Your task to perform on an android device: Show me recent news Image 0: 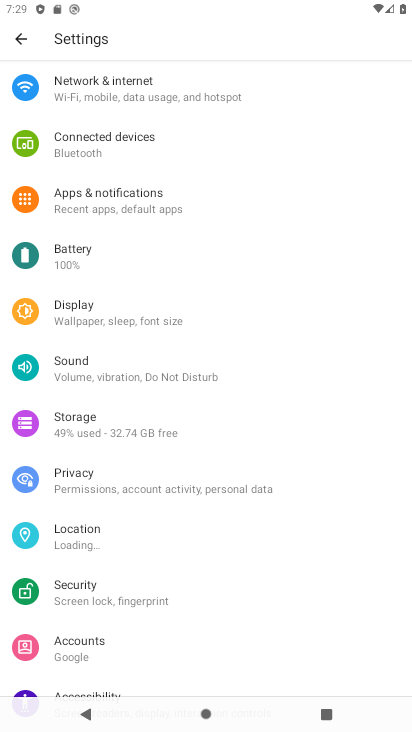
Step 0: press home button
Your task to perform on an android device: Show me recent news Image 1: 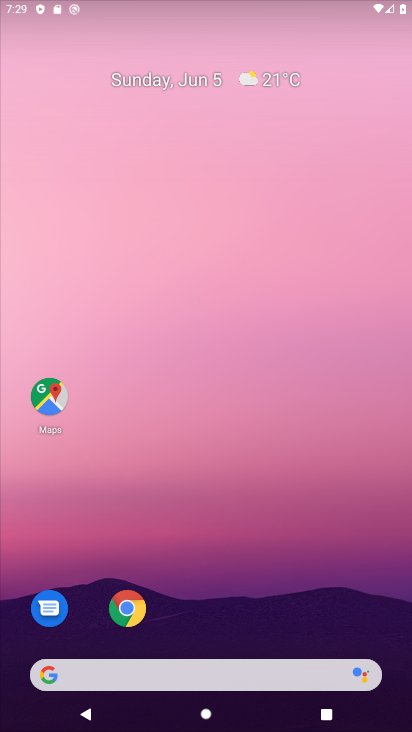
Step 1: drag from (327, 639) to (279, 242)
Your task to perform on an android device: Show me recent news Image 2: 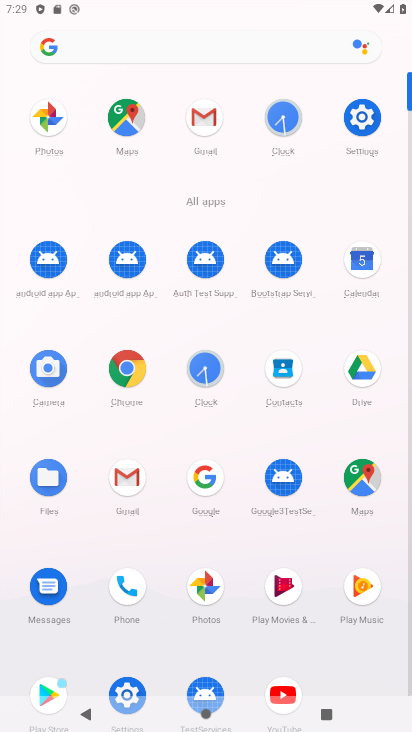
Step 2: click (141, 366)
Your task to perform on an android device: Show me recent news Image 3: 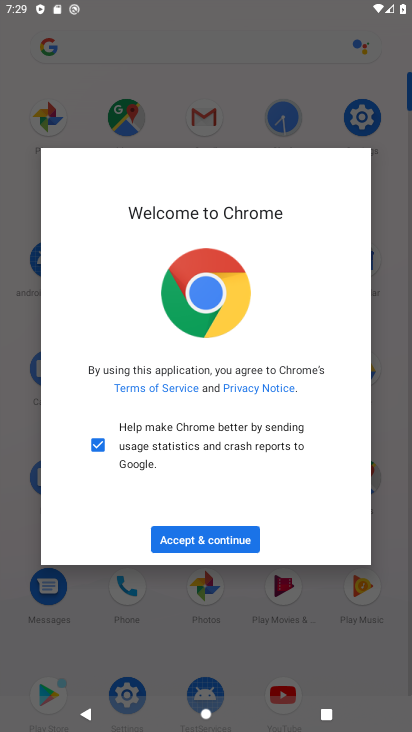
Step 3: click (200, 532)
Your task to perform on an android device: Show me recent news Image 4: 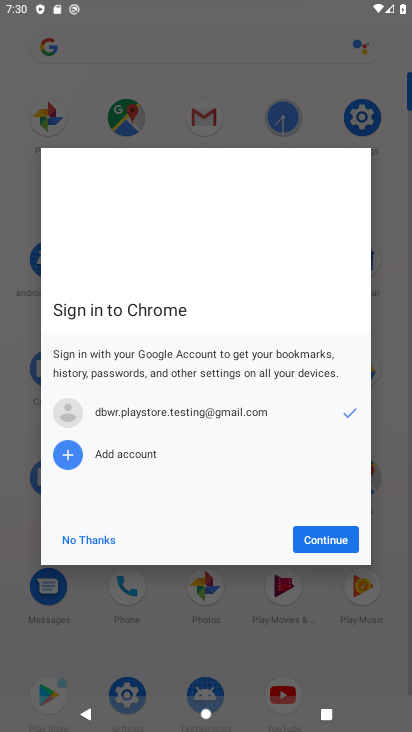
Step 4: click (319, 533)
Your task to perform on an android device: Show me recent news Image 5: 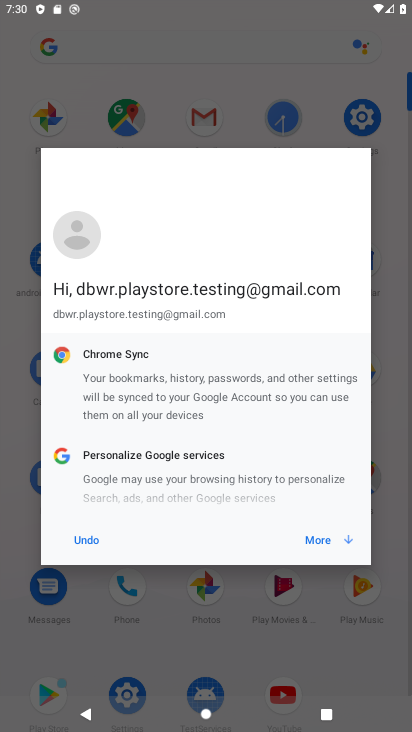
Step 5: click (319, 533)
Your task to perform on an android device: Show me recent news Image 6: 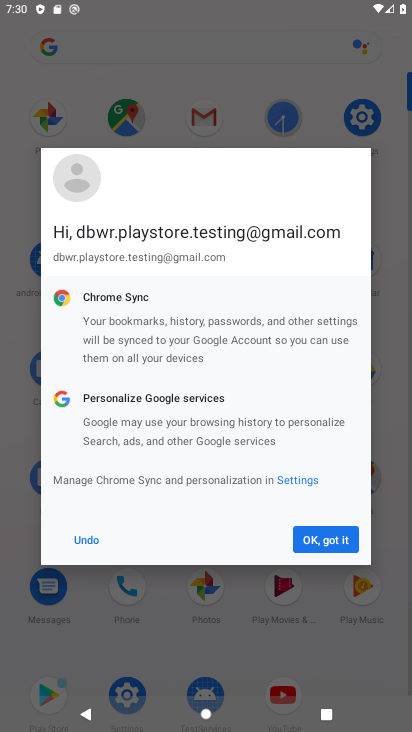
Step 6: click (319, 533)
Your task to perform on an android device: Show me recent news Image 7: 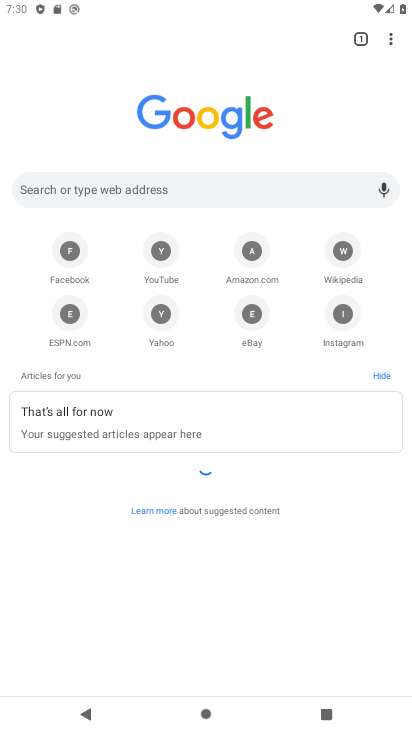
Step 7: click (165, 191)
Your task to perform on an android device: Show me recent news Image 8: 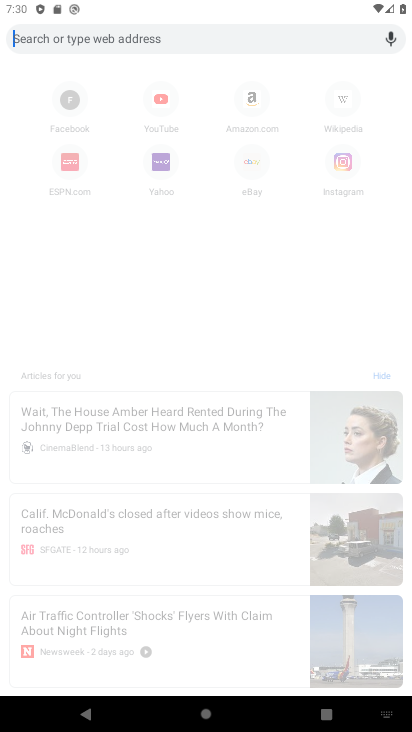
Step 8: type "recent news "
Your task to perform on an android device: Show me recent news Image 9: 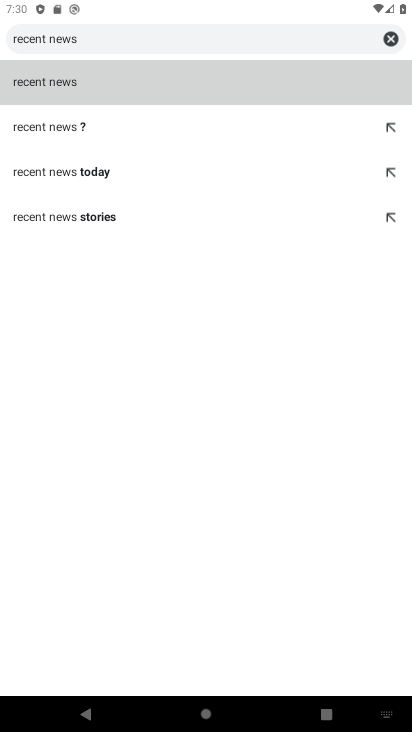
Step 9: click (32, 79)
Your task to perform on an android device: Show me recent news Image 10: 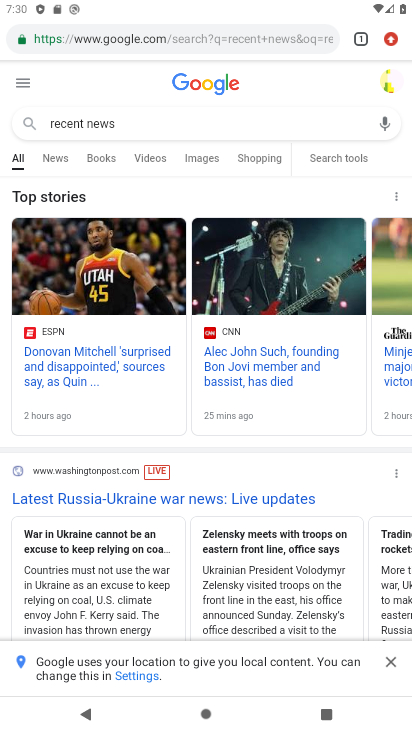
Step 10: task complete